Your task to perform on an android device: check out phone information Image 0: 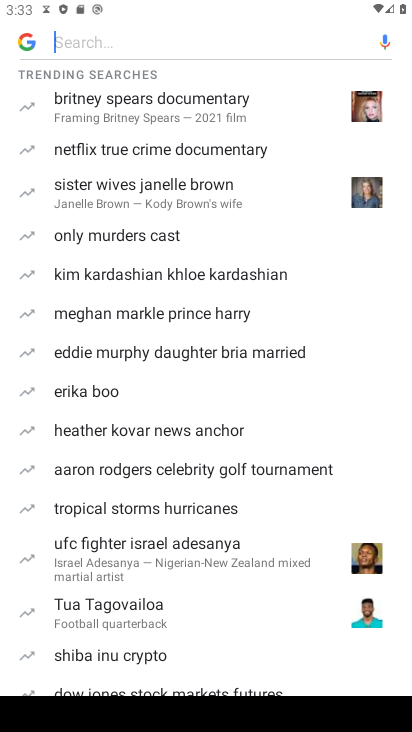
Step 0: press home button
Your task to perform on an android device: check out phone information Image 1: 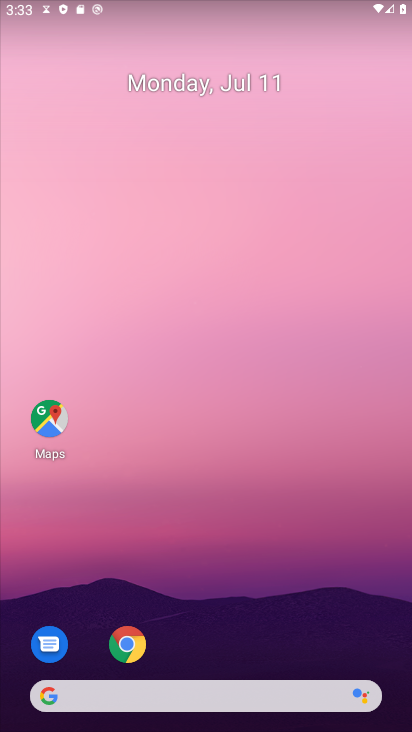
Step 1: drag from (242, 720) to (233, 678)
Your task to perform on an android device: check out phone information Image 2: 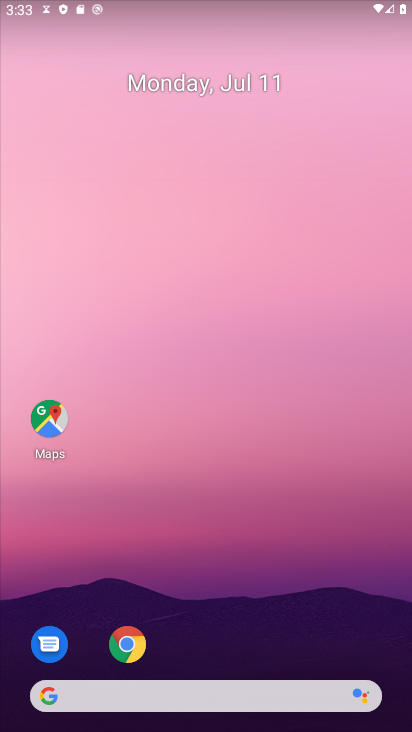
Step 2: drag from (226, 424) to (221, 104)
Your task to perform on an android device: check out phone information Image 3: 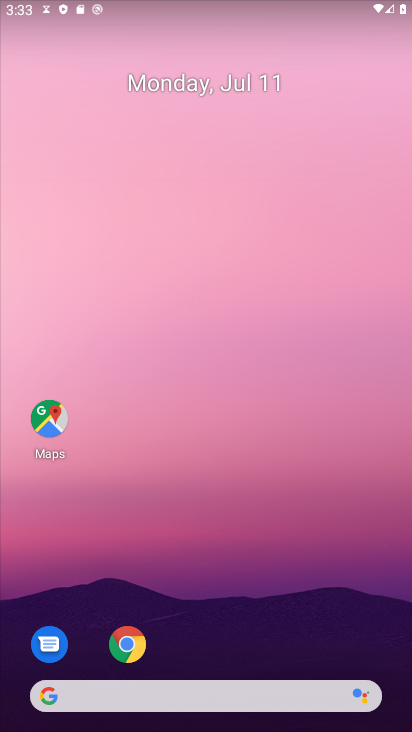
Step 3: click (238, 727)
Your task to perform on an android device: check out phone information Image 4: 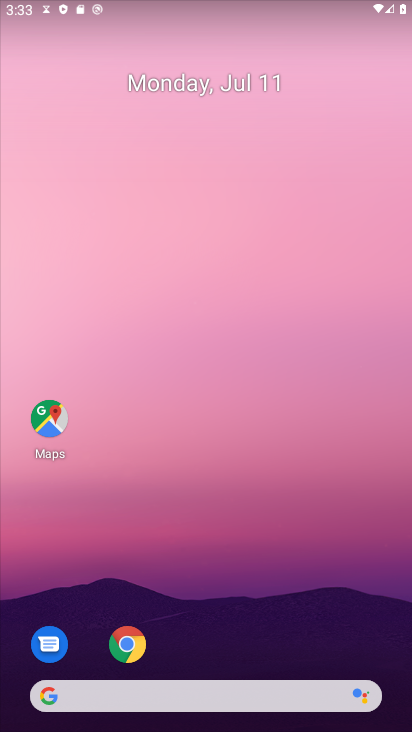
Step 4: drag from (202, 215) to (202, 78)
Your task to perform on an android device: check out phone information Image 5: 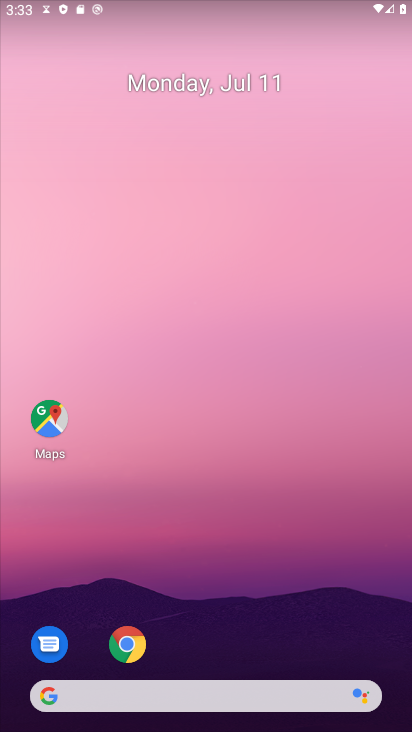
Step 5: drag from (278, 723) to (261, 70)
Your task to perform on an android device: check out phone information Image 6: 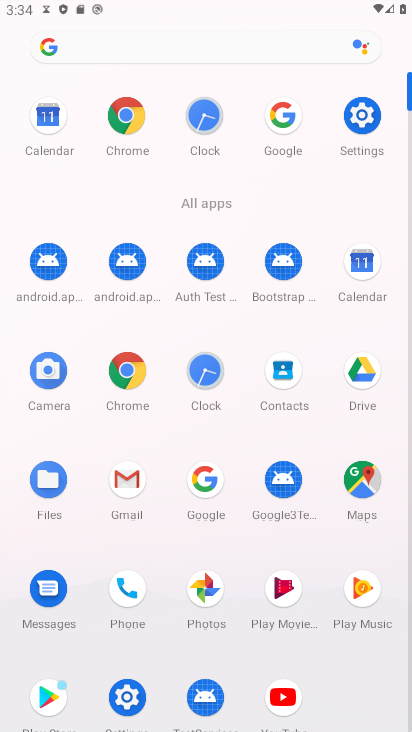
Step 6: click (361, 110)
Your task to perform on an android device: check out phone information Image 7: 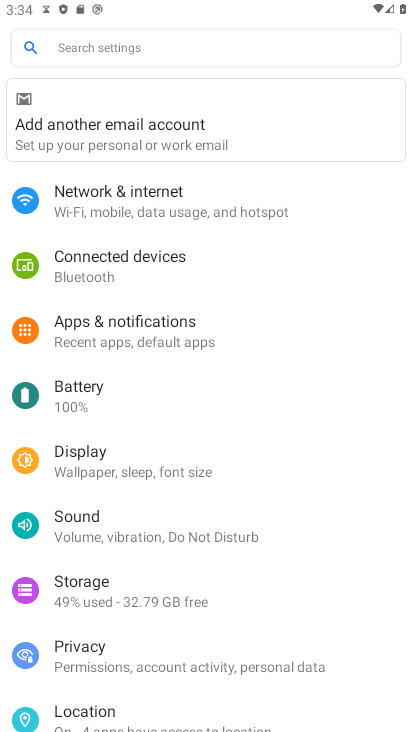
Step 7: drag from (185, 703) to (167, 548)
Your task to perform on an android device: check out phone information Image 8: 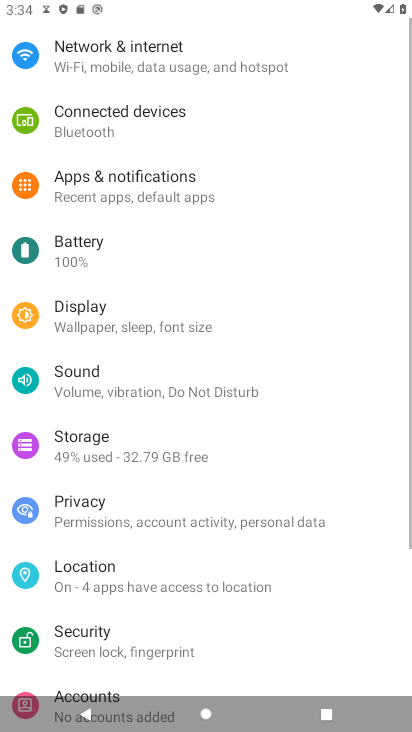
Step 8: drag from (157, 456) to (156, 342)
Your task to perform on an android device: check out phone information Image 9: 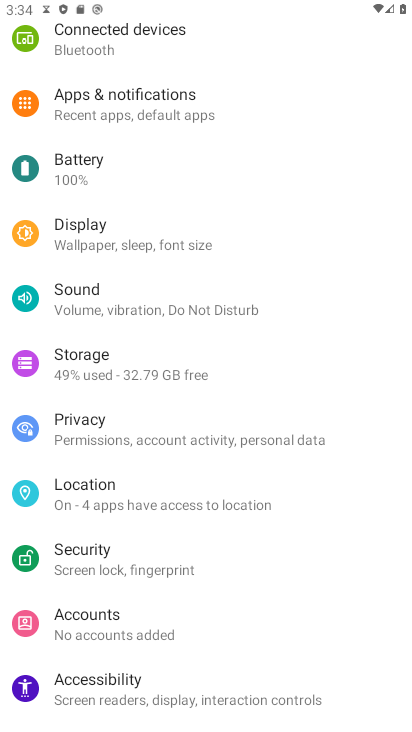
Step 9: drag from (166, 691) to (151, 340)
Your task to perform on an android device: check out phone information Image 10: 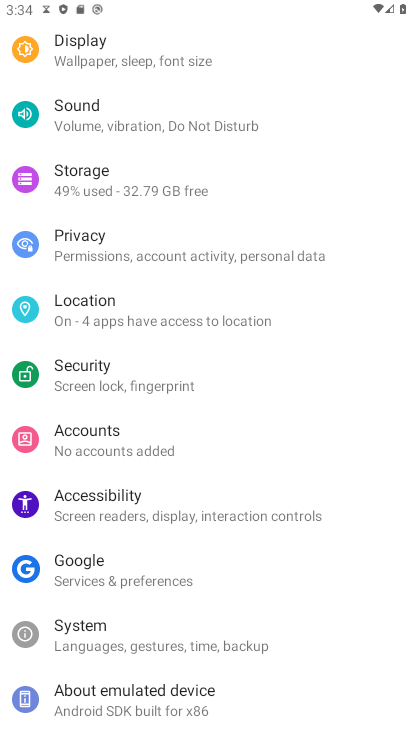
Step 10: drag from (187, 690) to (163, 315)
Your task to perform on an android device: check out phone information Image 11: 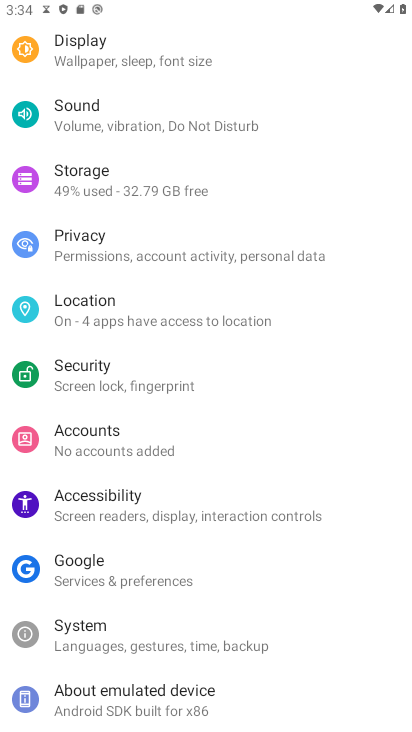
Step 11: click (122, 692)
Your task to perform on an android device: check out phone information Image 12: 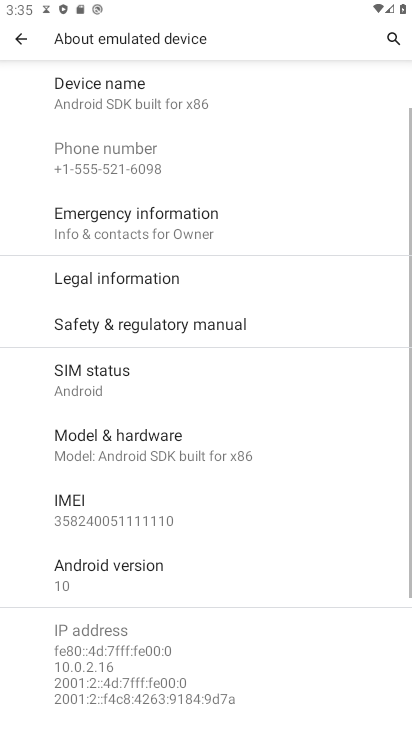
Step 12: task complete